Your task to perform on an android device: turn on priority inbox in the gmail app Image 0: 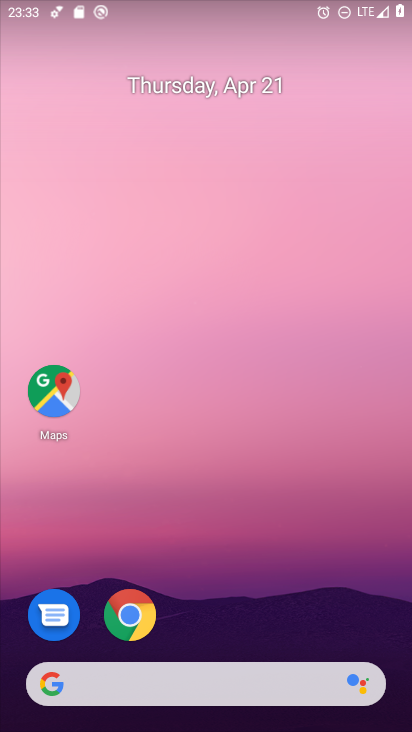
Step 0: drag from (205, 639) to (258, 0)
Your task to perform on an android device: turn on priority inbox in the gmail app Image 1: 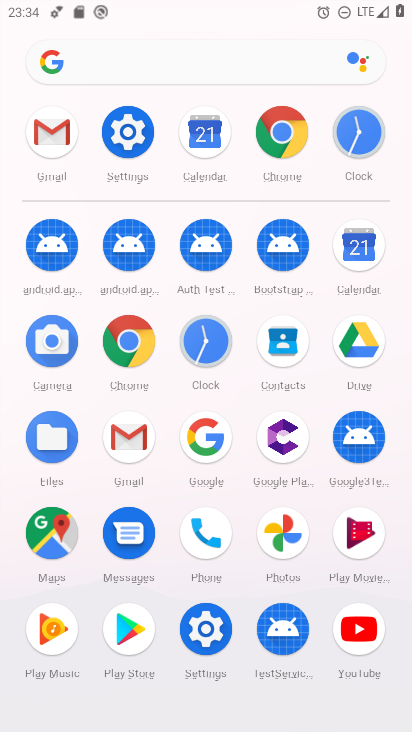
Step 1: click (128, 432)
Your task to perform on an android device: turn on priority inbox in the gmail app Image 2: 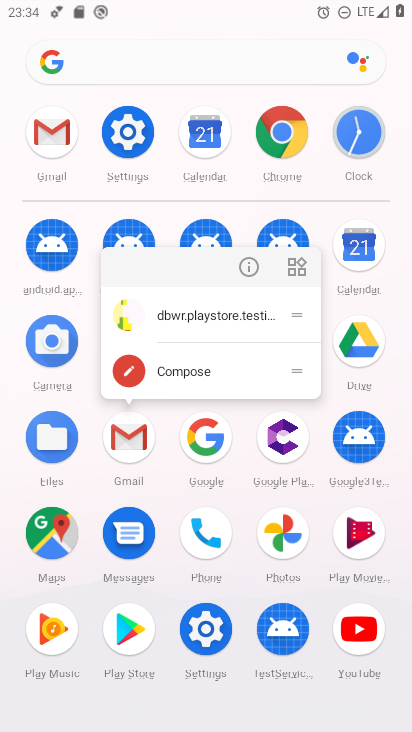
Step 2: click (128, 432)
Your task to perform on an android device: turn on priority inbox in the gmail app Image 3: 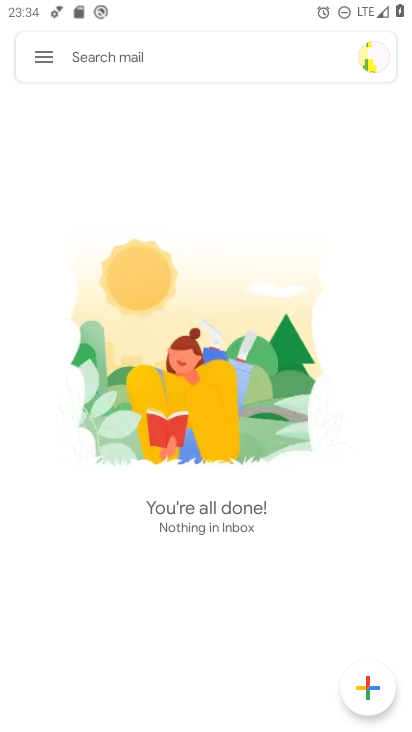
Step 3: click (45, 52)
Your task to perform on an android device: turn on priority inbox in the gmail app Image 4: 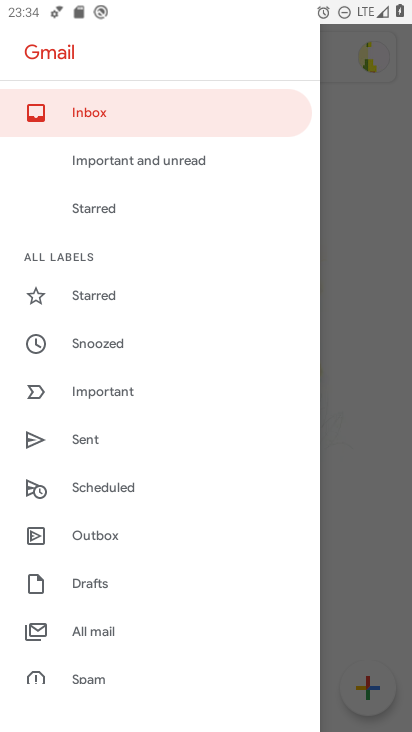
Step 4: drag from (121, 650) to (185, 148)
Your task to perform on an android device: turn on priority inbox in the gmail app Image 5: 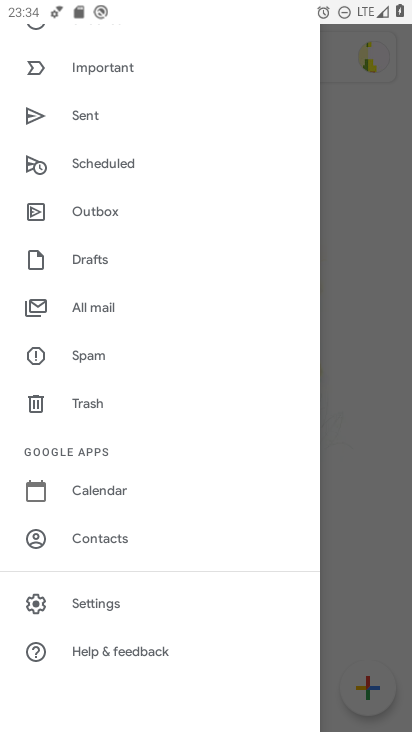
Step 5: click (128, 603)
Your task to perform on an android device: turn on priority inbox in the gmail app Image 6: 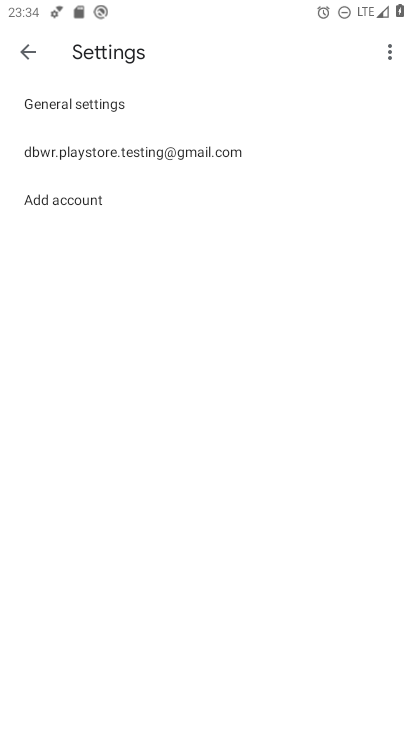
Step 6: click (114, 153)
Your task to perform on an android device: turn on priority inbox in the gmail app Image 7: 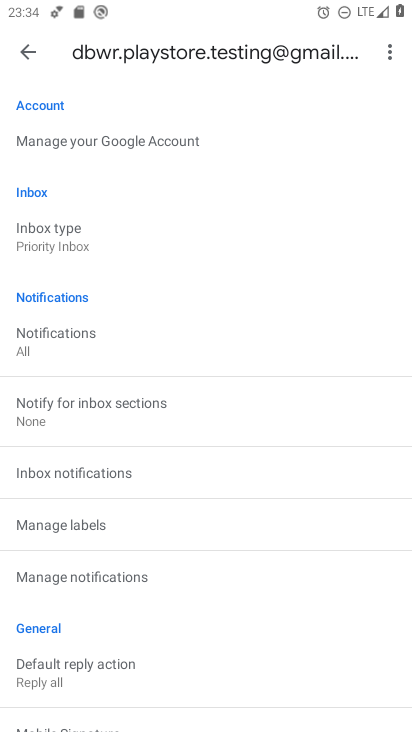
Step 7: click (93, 239)
Your task to perform on an android device: turn on priority inbox in the gmail app Image 8: 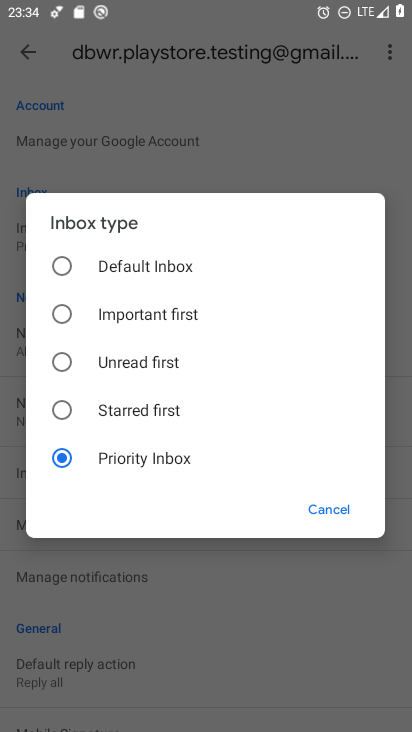
Step 8: click (66, 258)
Your task to perform on an android device: turn on priority inbox in the gmail app Image 9: 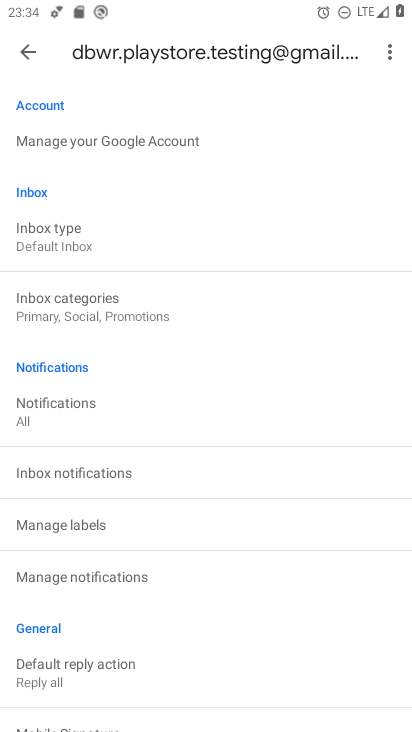
Step 9: task complete